Your task to perform on an android device: find photos in the google photos app Image 0: 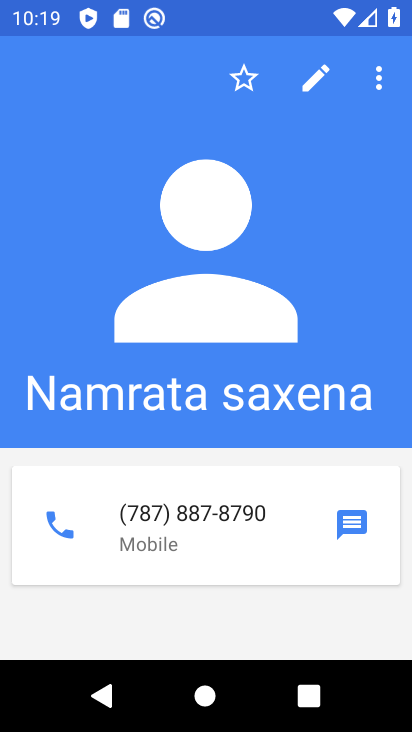
Step 0: press home button
Your task to perform on an android device: find photos in the google photos app Image 1: 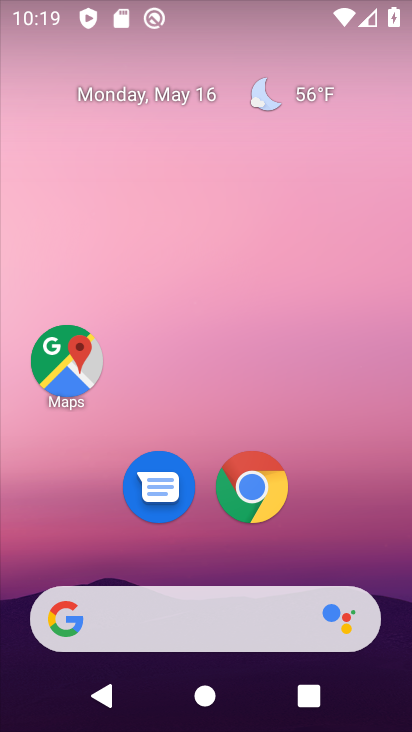
Step 1: click (247, 3)
Your task to perform on an android device: find photos in the google photos app Image 2: 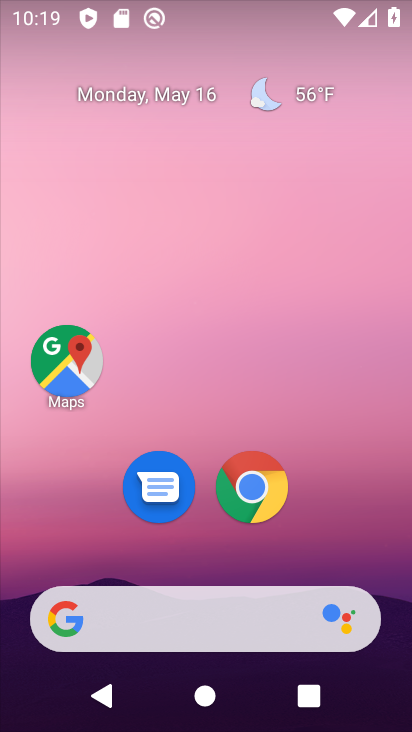
Step 2: drag from (245, 403) to (237, 128)
Your task to perform on an android device: find photos in the google photos app Image 3: 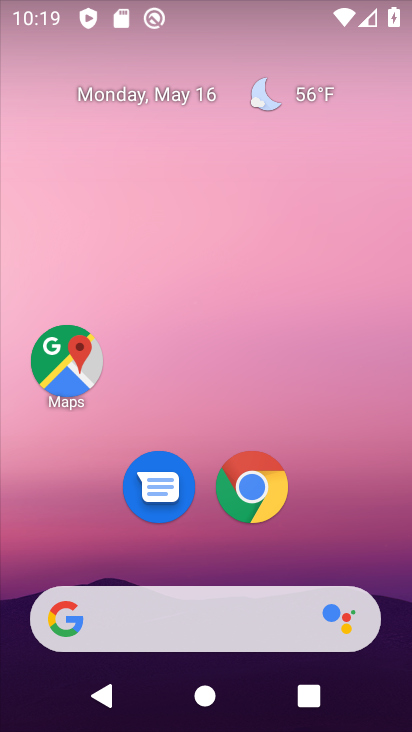
Step 3: drag from (245, 569) to (279, 130)
Your task to perform on an android device: find photos in the google photos app Image 4: 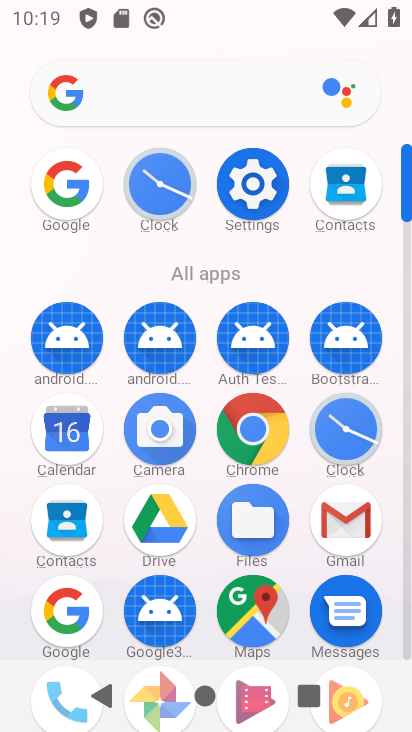
Step 4: drag from (227, 614) to (305, 285)
Your task to perform on an android device: find photos in the google photos app Image 5: 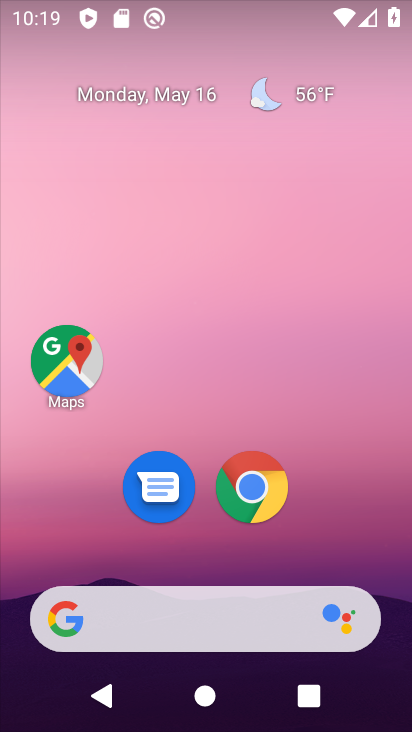
Step 5: drag from (285, 560) to (238, 36)
Your task to perform on an android device: find photos in the google photos app Image 6: 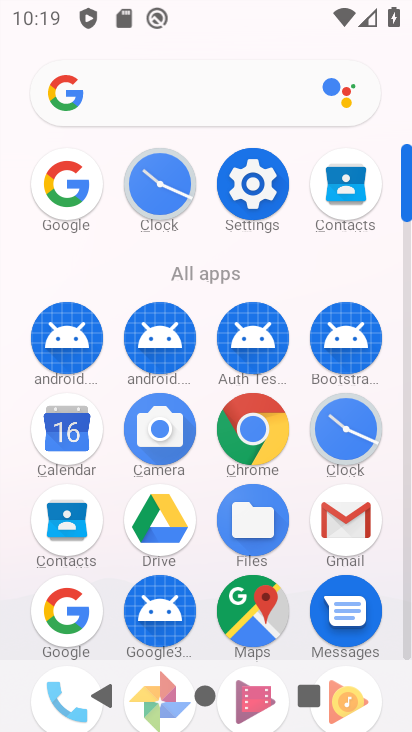
Step 6: click (220, 269)
Your task to perform on an android device: find photos in the google photos app Image 7: 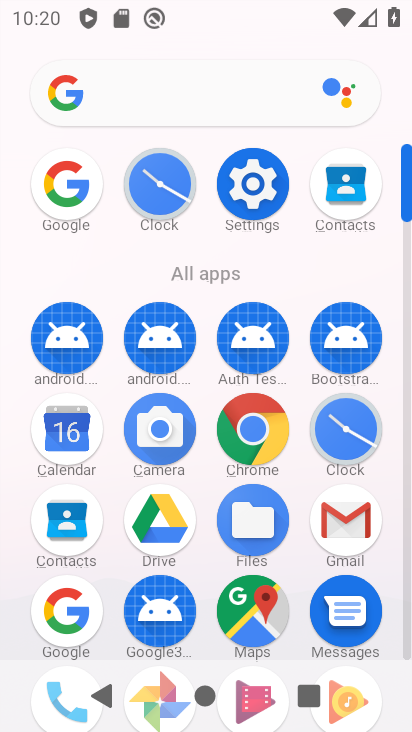
Step 7: drag from (188, 639) to (317, 22)
Your task to perform on an android device: find photos in the google photos app Image 8: 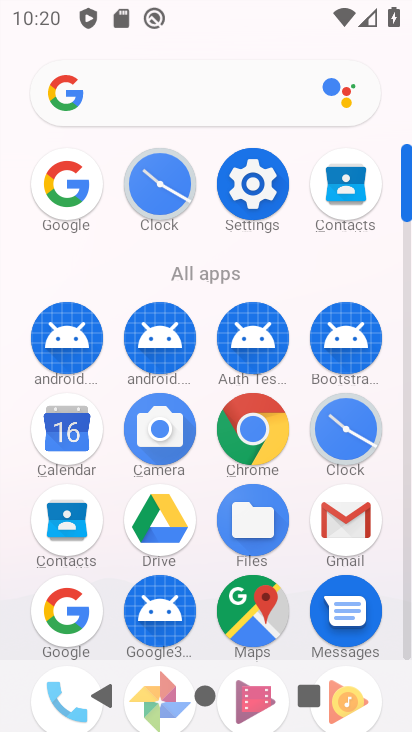
Step 8: drag from (197, 598) to (221, 355)
Your task to perform on an android device: find photos in the google photos app Image 9: 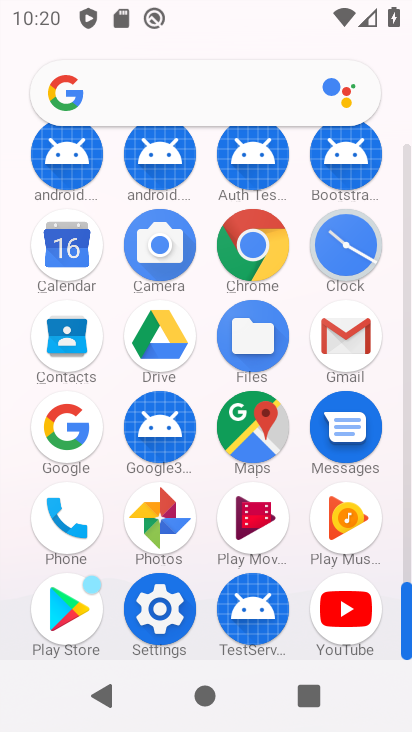
Step 9: click (157, 524)
Your task to perform on an android device: find photos in the google photos app Image 10: 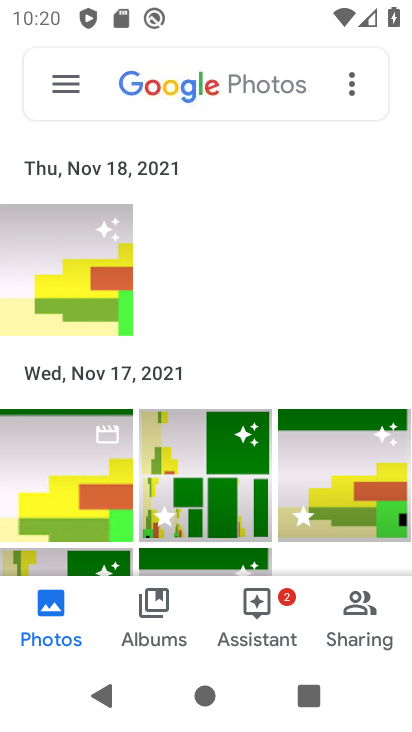
Step 10: task complete